Your task to perform on an android device: open device folders in google photos Image 0: 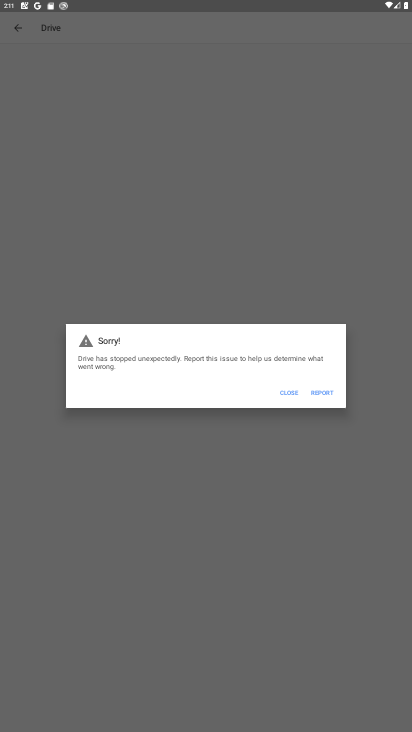
Step 0: press home button
Your task to perform on an android device: open device folders in google photos Image 1: 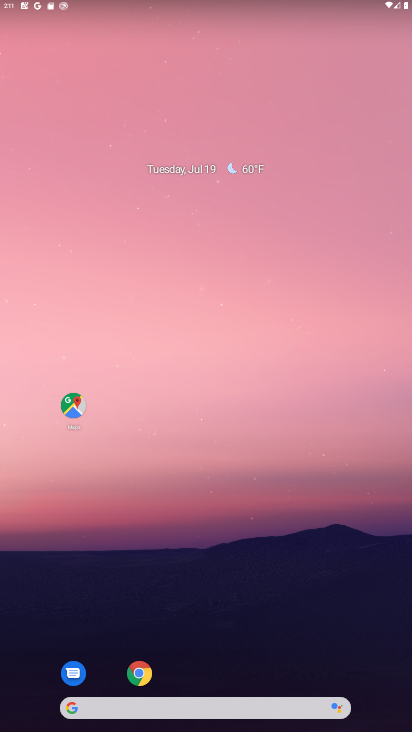
Step 1: drag from (160, 694) to (280, 161)
Your task to perform on an android device: open device folders in google photos Image 2: 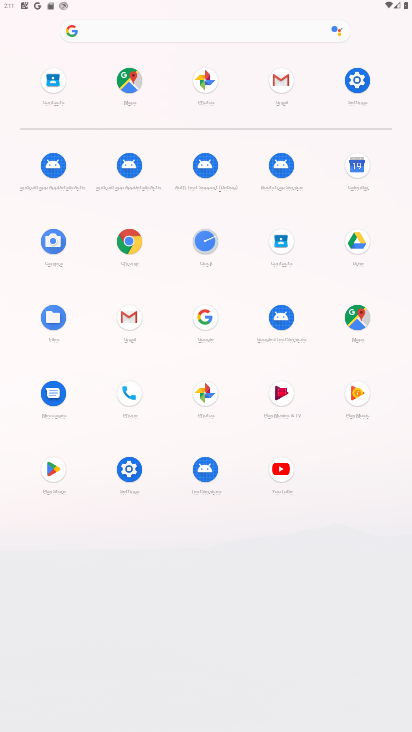
Step 2: click (202, 73)
Your task to perform on an android device: open device folders in google photos Image 3: 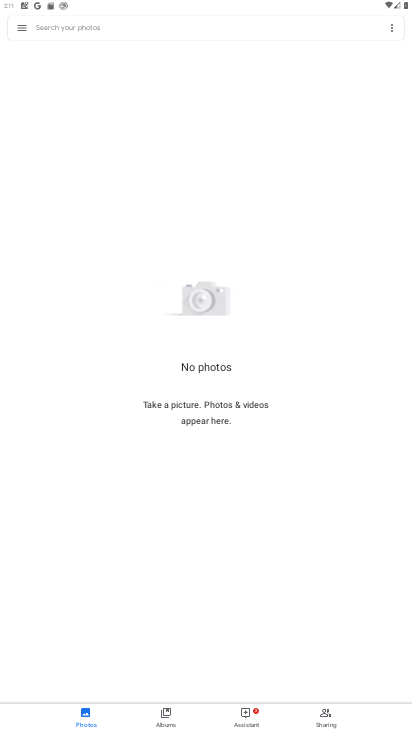
Step 3: click (20, 23)
Your task to perform on an android device: open device folders in google photos Image 4: 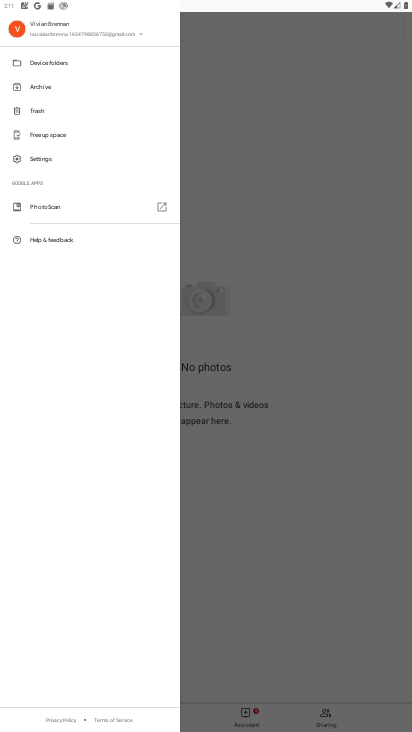
Step 4: click (69, 65)
Your task to perform on an android device: open device folders in google photos Image 5: 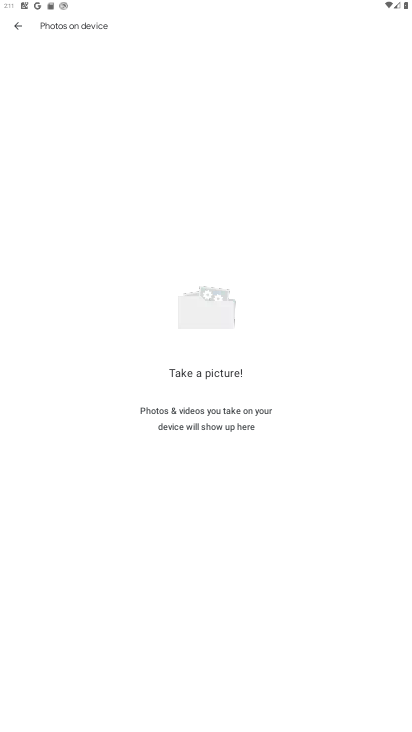
Step 5: task complete